Your task to perform on an android device: change notifications settings Image 0: 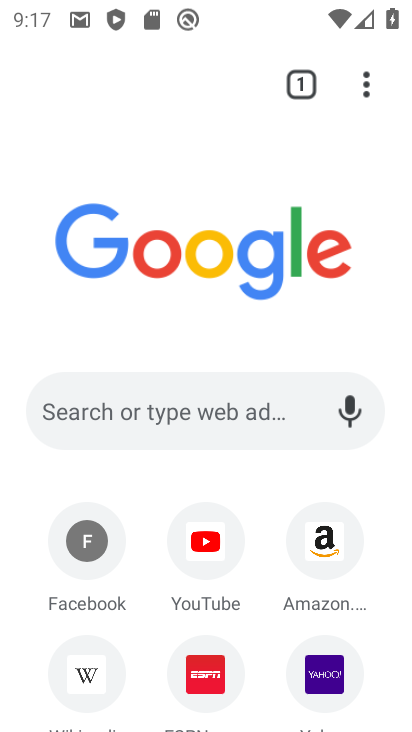
Step 0: click (375, 100)
Your task to perform on an android device: change notifications settings Image 1: 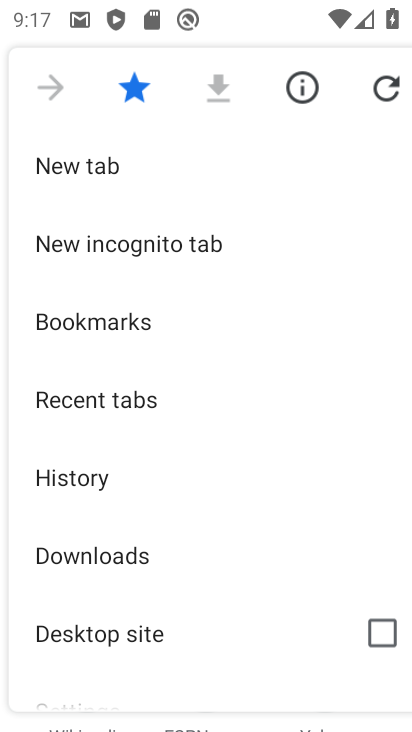
Step 1: drag from (265, 544) to (265, 290)
Your task to perform on an android device: change notifications settings Image 2: 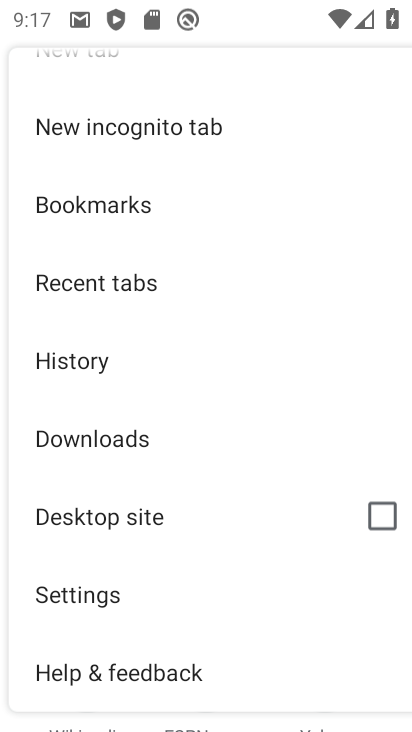
Step 2: click (219, 594)
Your task to perform on an android device: change notifications settings Image 3: 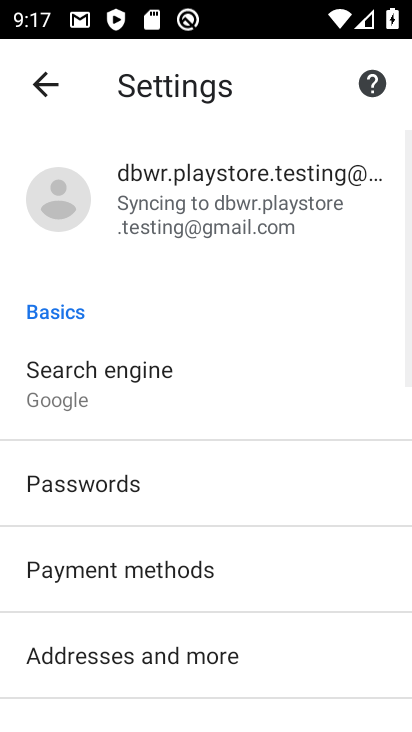
Step 3: drag from (263, 623) to (270, 366)
Your task to perform on an android device: change notifications settings Image 4: 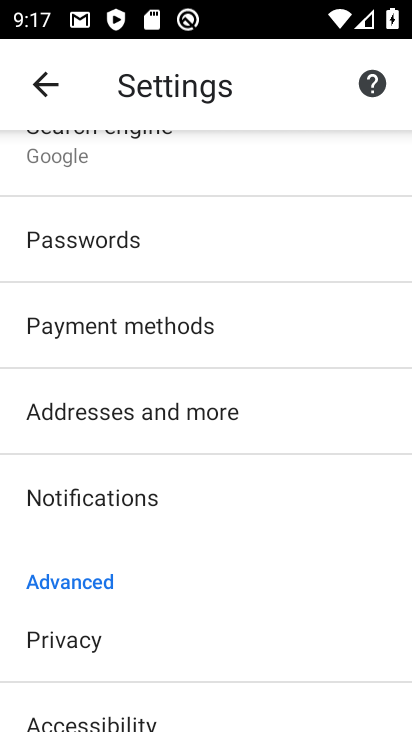
Step 4: click (238, 488)
Your task to perform on an android device: change notifications settings Image 5: 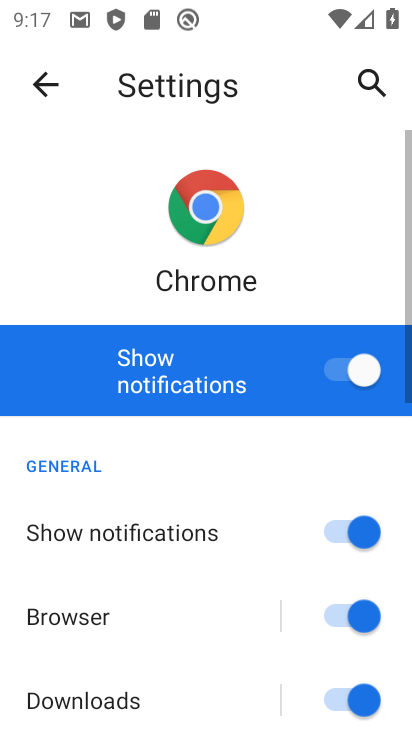
Step 5: click (331, 380)
Your task to perform on an android device: change notifications settings Image 6: 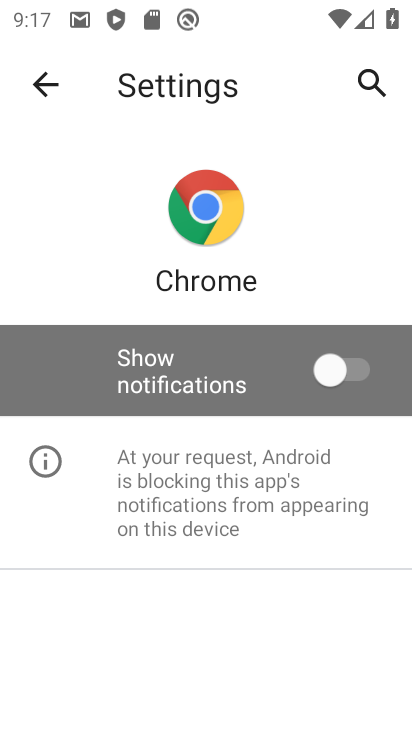
Step 6: task complete